Your task to perform on an android device: Open Google Maps Image 0: 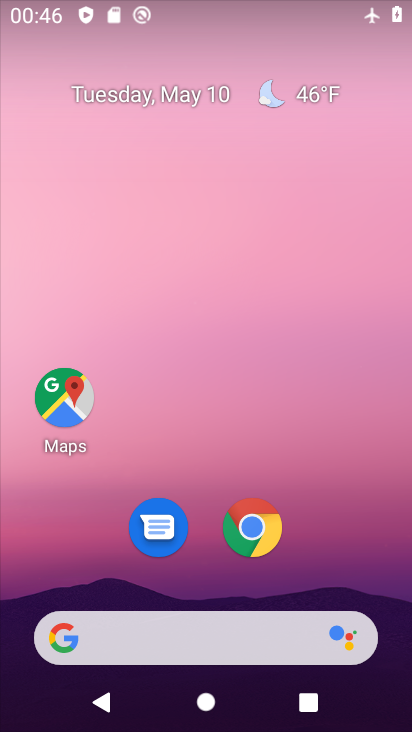
Step 0: click (70, 396)
Your task to perform on an android device: Open Google Maps Image 1: 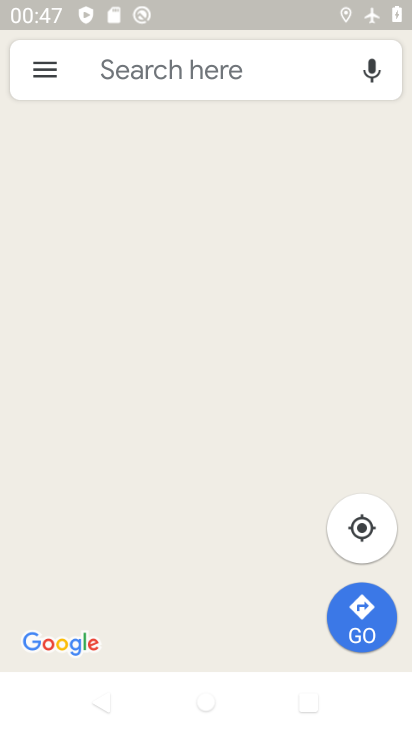
Step 1: task complete